Your task to perform on an android device: uninstall "NewsBreak: Local News & Alerts" Image 0: 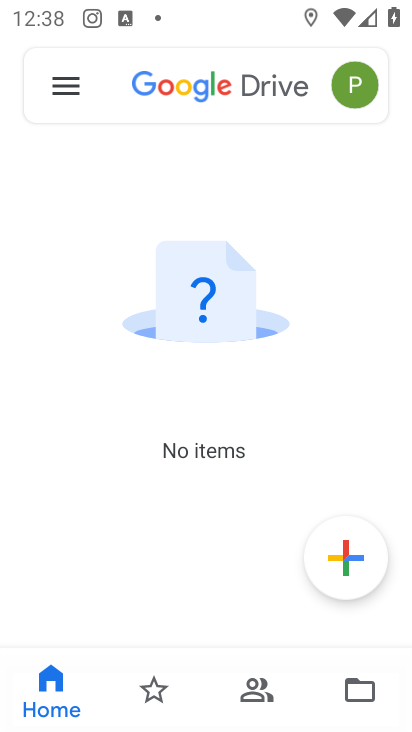
Step 0: drag from (54, 589) to (139, 117)
Your task to perform on an android device: uninstall "NewsBreak: Local News & Alerts" Image 1: 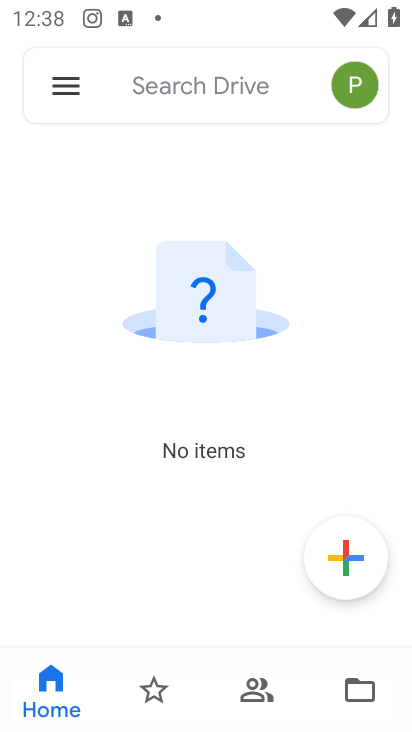
Step 1: press back button
Your task to perform on an android device: uninstall "NewsBreak: Local News & Alerts" Image 2: 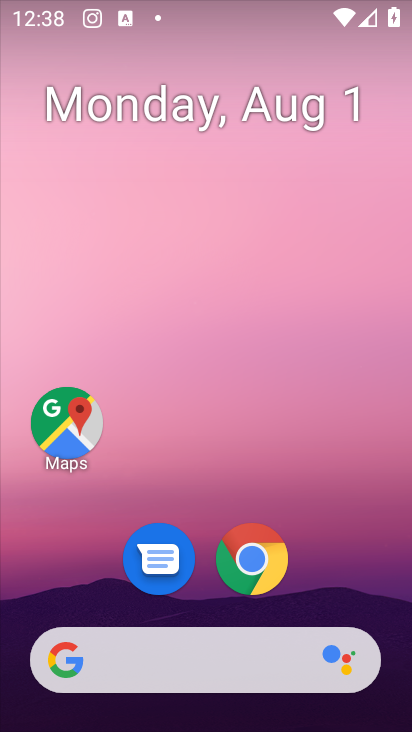
Step 2: drag from (51, 553) to (171, 3)
Your task to perform on an android device: uninstall "NewsBreak: Local News & Alerts" Image 3: 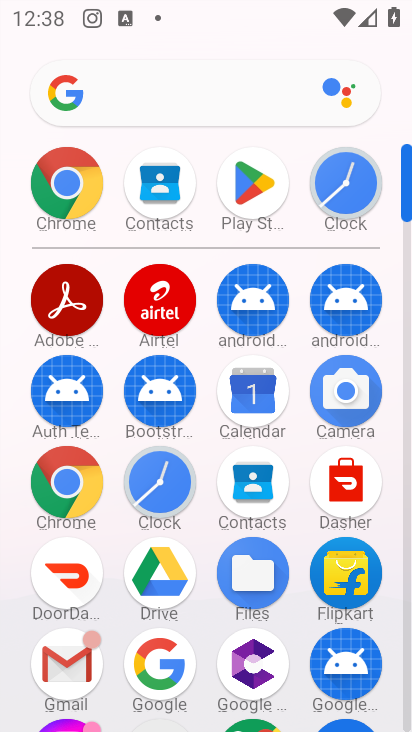
Step 3: click (254, 181)
Your task to perform on an android device: uninstall "NewsBreak: Local News & Alerts" Image 4: 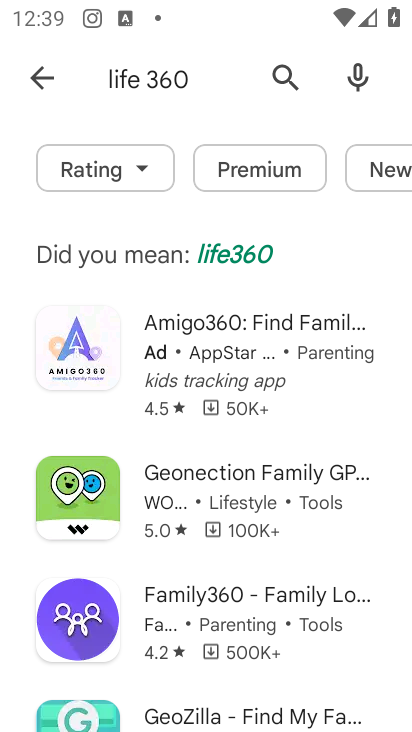
Step 4: click (283, 66)
Your task to perform on an android device: uninstall "NewsBreak: Local News & Alerts" Image 5: 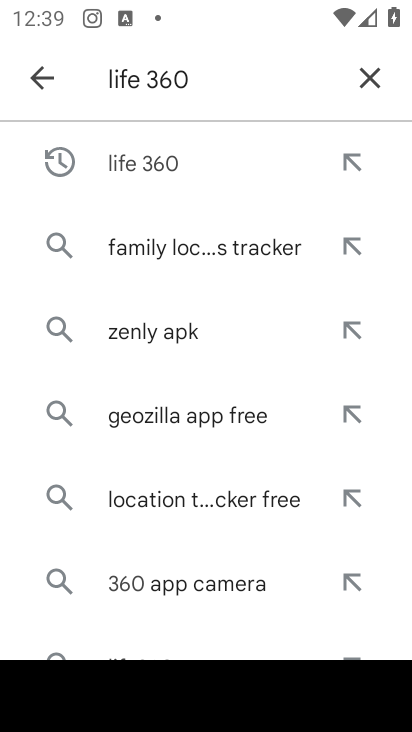
Step 5: click (359, 71)
Your task to perform on an android device: uninstall "NewsBreak: Local News & Alerts" Image 6: 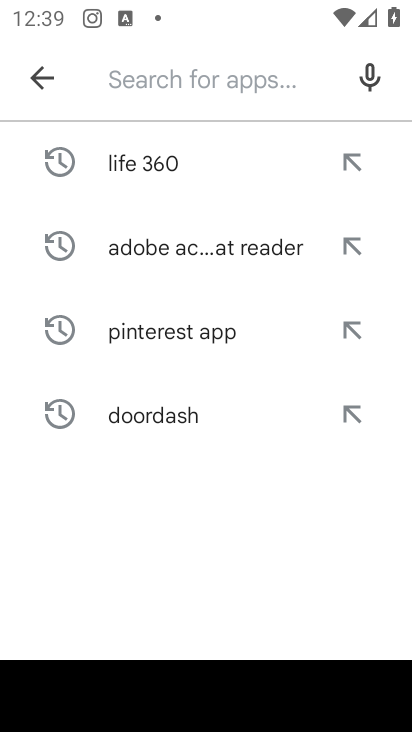
Step 6: click (168, 86)
Your task to perform on an android device: uninstall "NewsBreak: Local News & Alerts" Image 7: 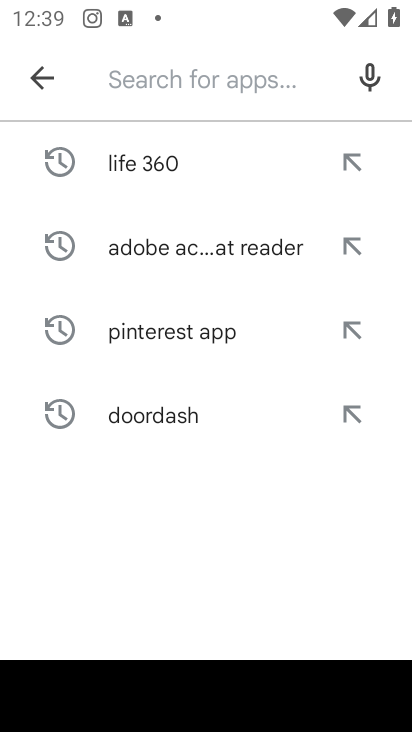
Step 7: type "news break"
Your task to perform on an android device: uninstall "NewsBreak: Local News & Alerts" Image 8: 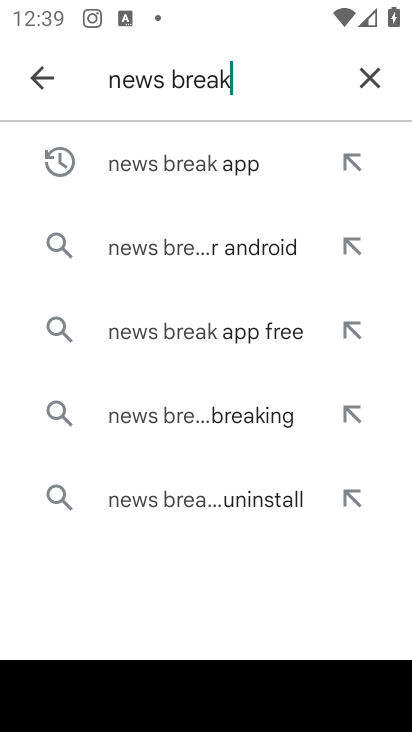
Step 8: click (179, 156)
Your task to perform on an android device: uninstall "NewsBreak: Local News & Alerts" Image 9: 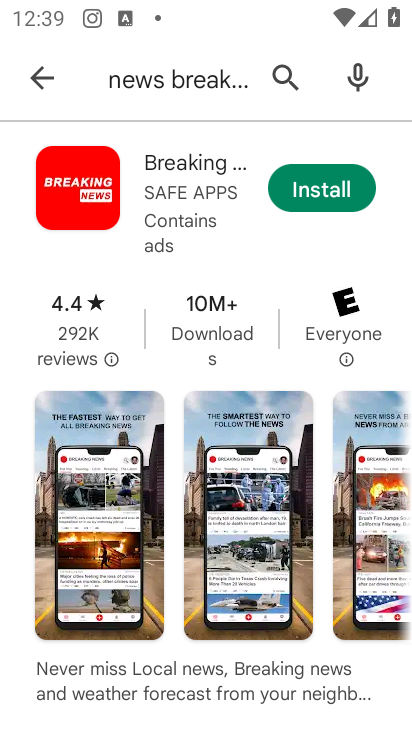
Step 9: task complete